Your task to perform on an android device: Is it going to rain this weekend? Image 0: 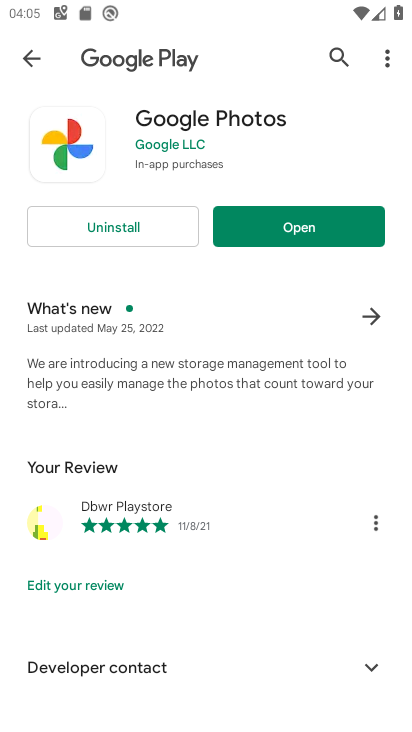
Step 0: press home button
Your task to perform on an android device: Is it going to rain this weekend? Image 1: 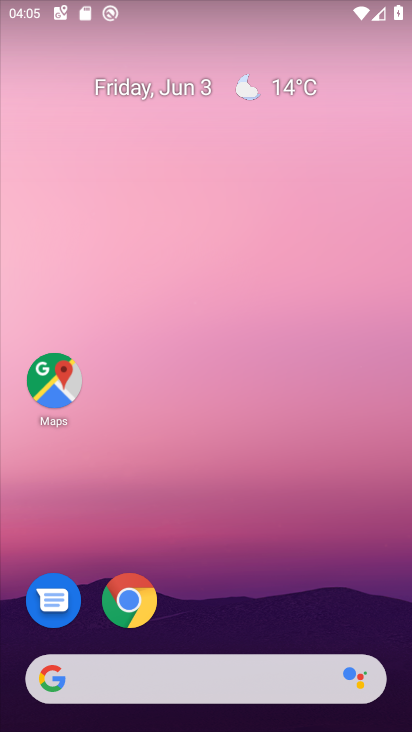
Step 1: click (301, 86)
Your task to perform on an android device: Is it going to rain this weekend? Image 2: 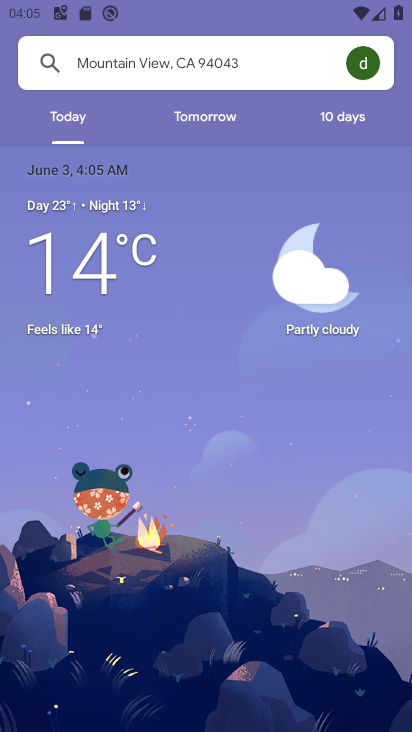
Step 2: click (322, 113)
Your task to perform on an android device: Is it going to rain this weekend? Image 3: 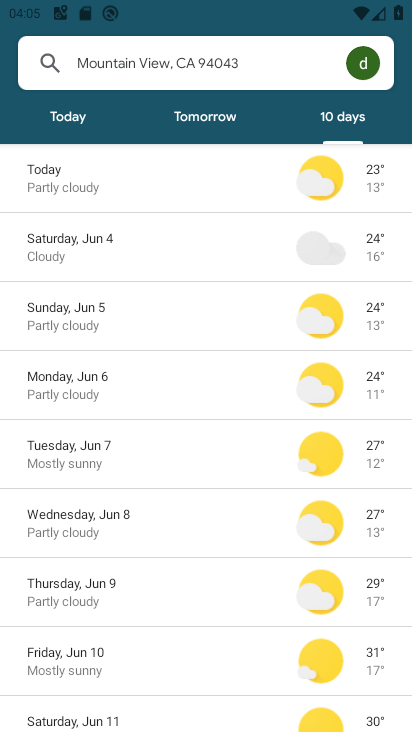
Step 3: task complete